Your task to perform on an android device: stop showing notifications on the lock screen Image 0: 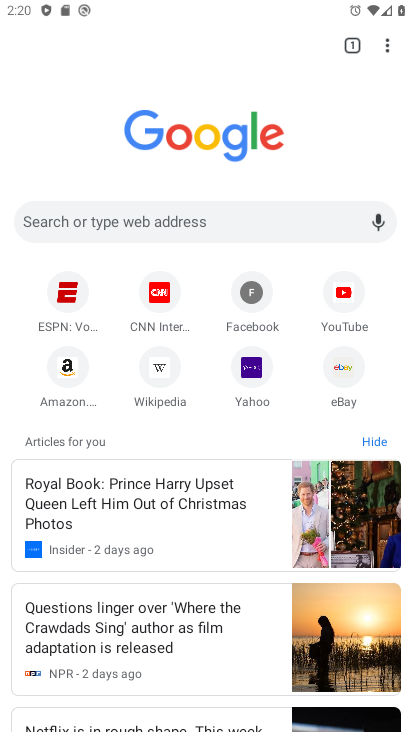
Step 0: press home button
Your task to perform on an android device: stop showing notifications on the lock screen Image 1: 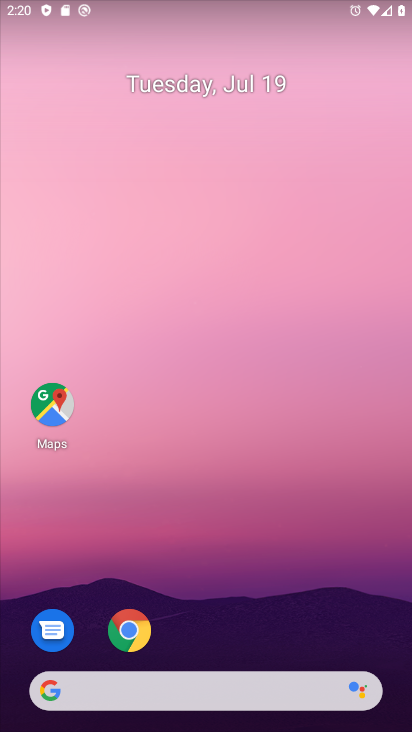
Step 1: drag from (226, 540) to (312, 19)
Your task to perform on an android device: stop showing notifications on the lock screen Image 2: 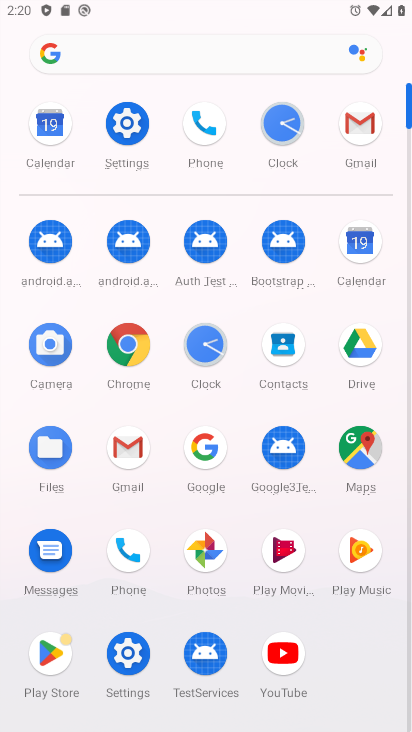
Step 2: click (133, 124)
Your task to perform on an android device: stop showing notifications on the lock screen Image 3: 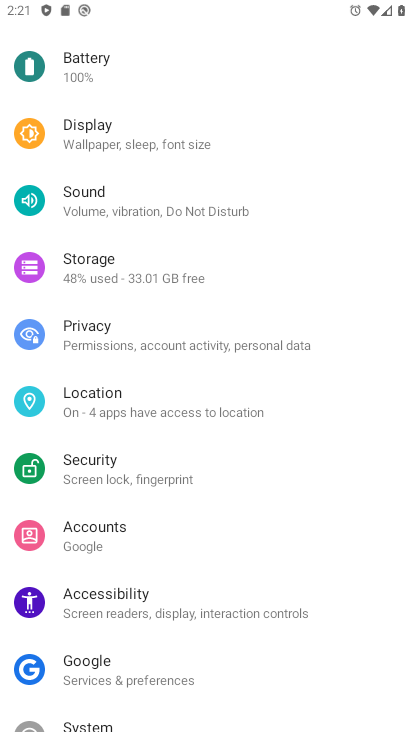
Step 3: drag from (197, 219) to (235, 522)
Your task to perform on an android device: stop showing notifications on the lock screen Image 4: 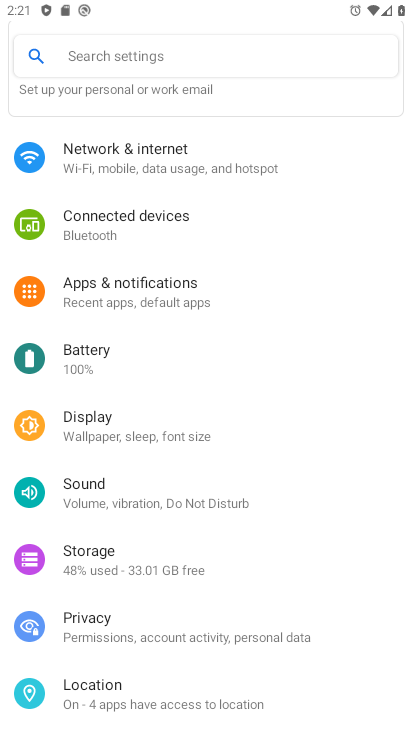
Step 4: click (146, 292)
Your task to perform on an android device: stop showing notifications on the lock screen Image 5: 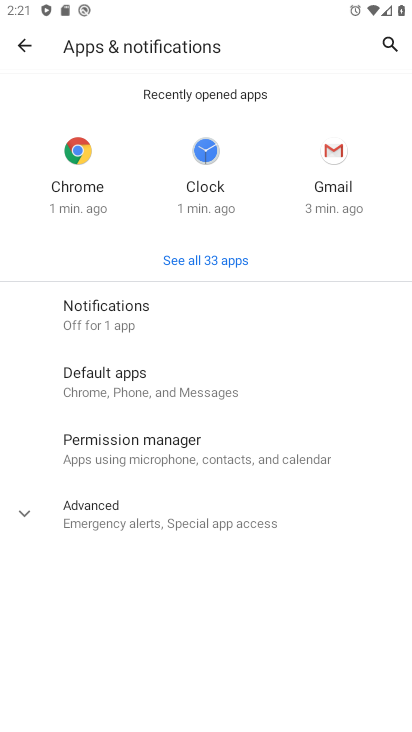
Step 5: click (125, 316)
Your task to perform on an android device: stop showing notifications on the lock screen Image 6: 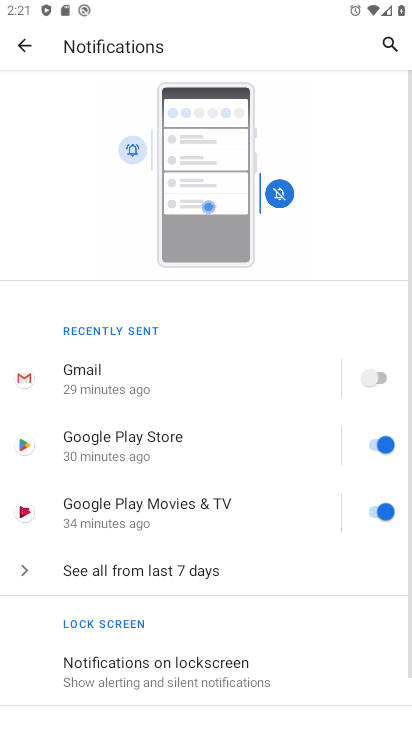
Step 6: drag from (207, 536) to (238, 233)
Your task to perform on an android device: stop showing notifications on the lock screen Image 7: 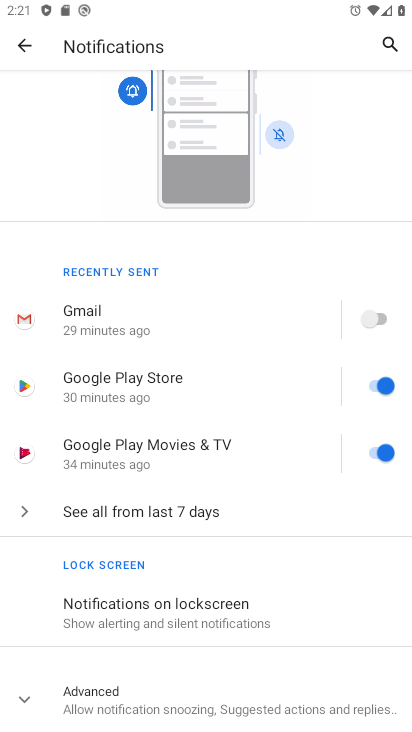
Step 7: click (210, 616)
Your task to perform on an android device: stop showing notifications on the lock screen Image 8: 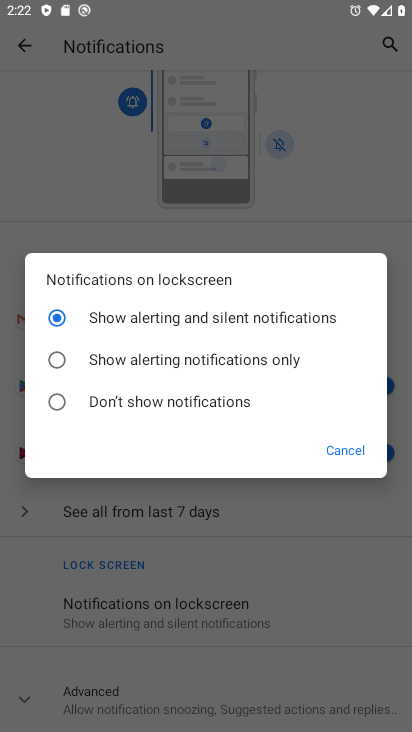
Step 8: click (57, 397)
Your task to perform on an android device: stop showing notifications on the lock screen Image 9: 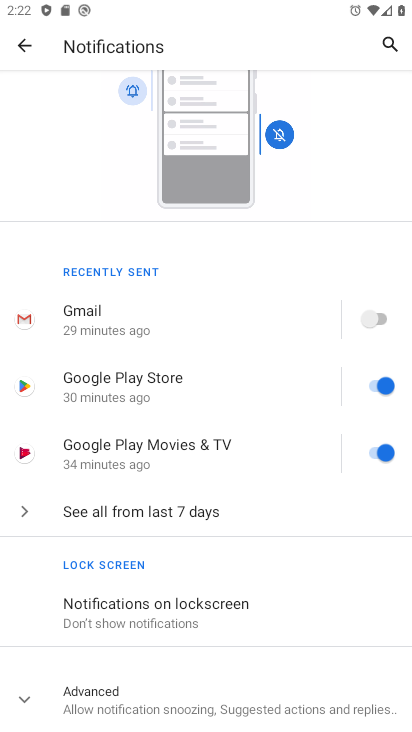
Step 9: task complete